Your task to perform on an android device: Turn on the flashlight Image 0: 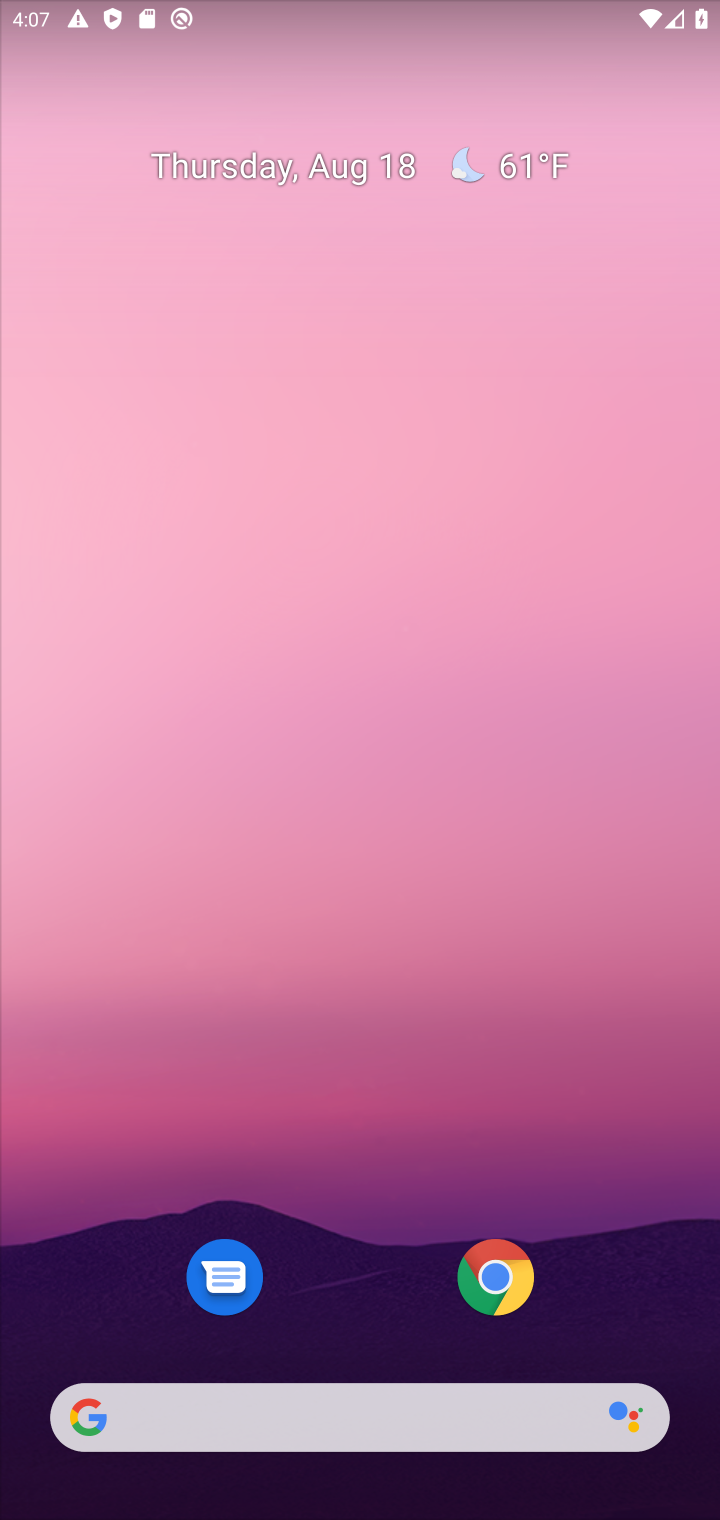
Step 0: drag from (406, 1129) to (331, 46)
Your task to perform on an android device: Turn on the flashlight Image 1: 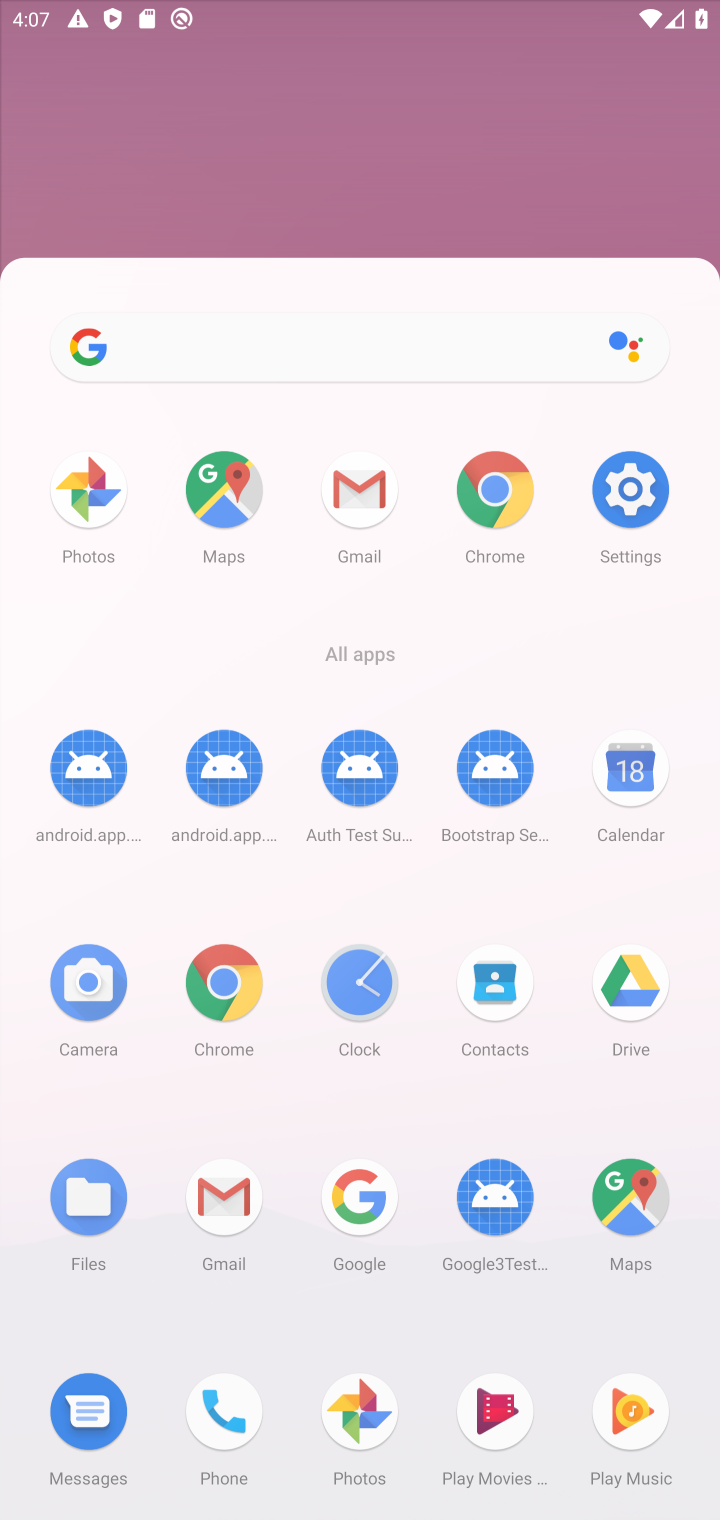
Step 1: task complete